Your task to perform on an android device: Search for "logitech g pro" on costco.com, select the first entry, and add it to the cart. Image 0: 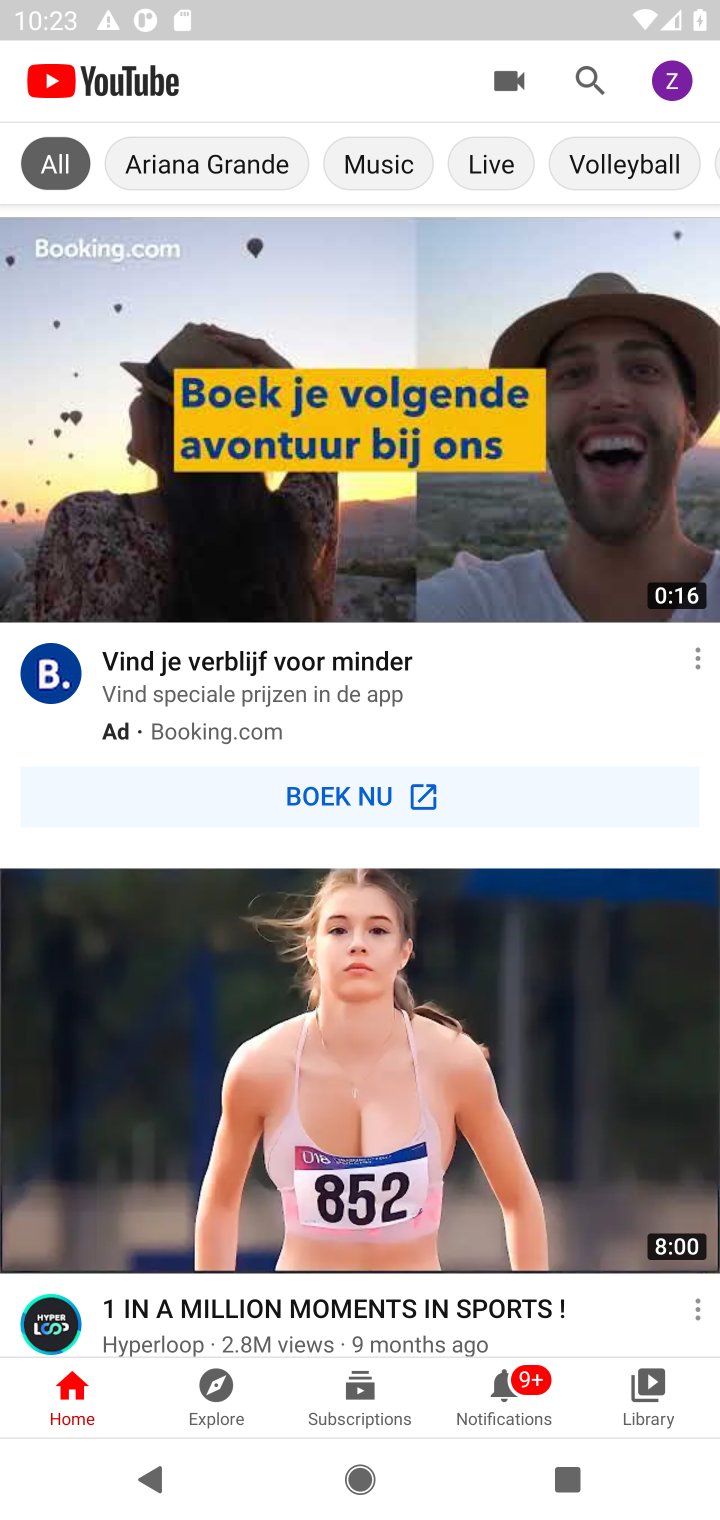
Step 0: press home button
Your task to perform on an android device: Search for "logitech g pro" on costco.com, select the first entry, and add it to the cart. Image 1: 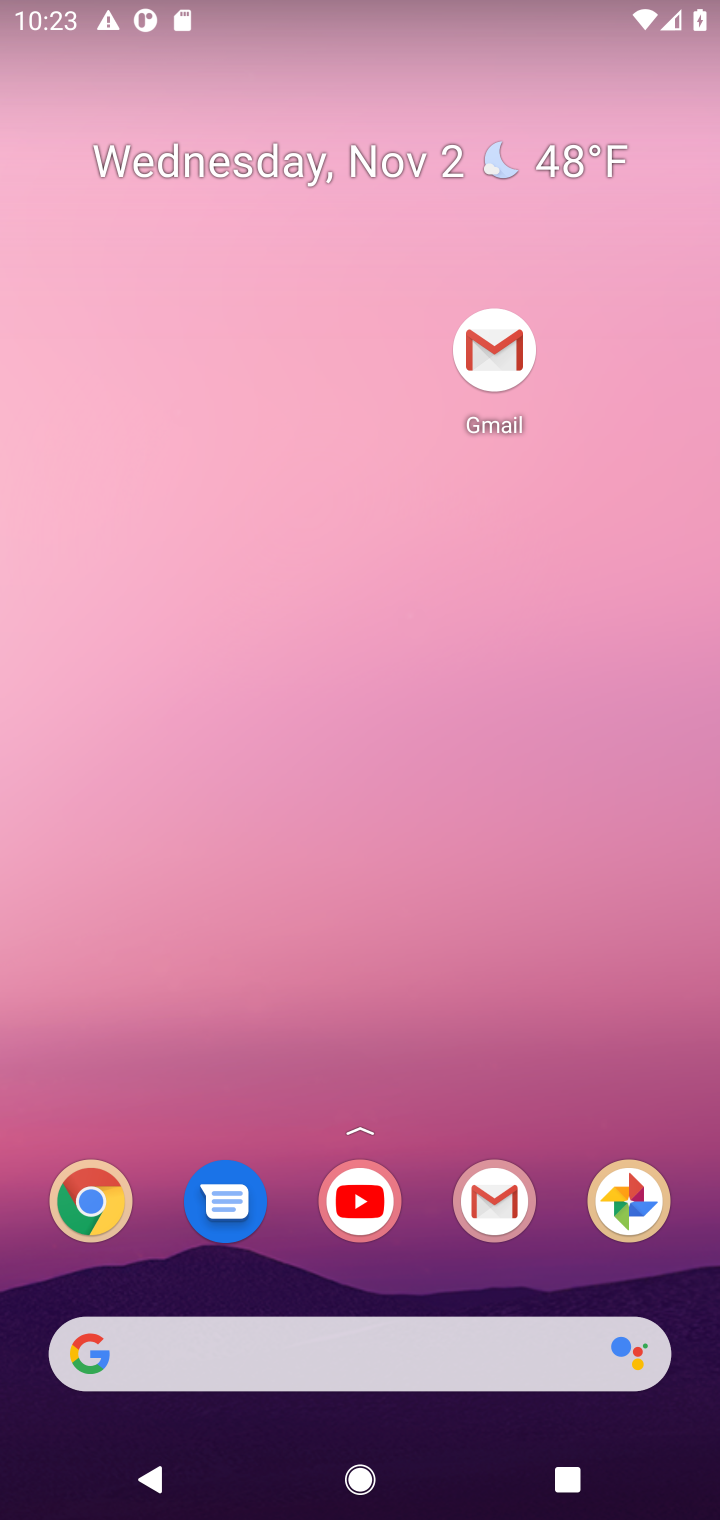
Step 1: drag from (417, 1277) to (357, 265)
Your task to perform on an android device: Search for "logitech g pro" on costco.com, select the first entry, and add it to the cart. Image 2: 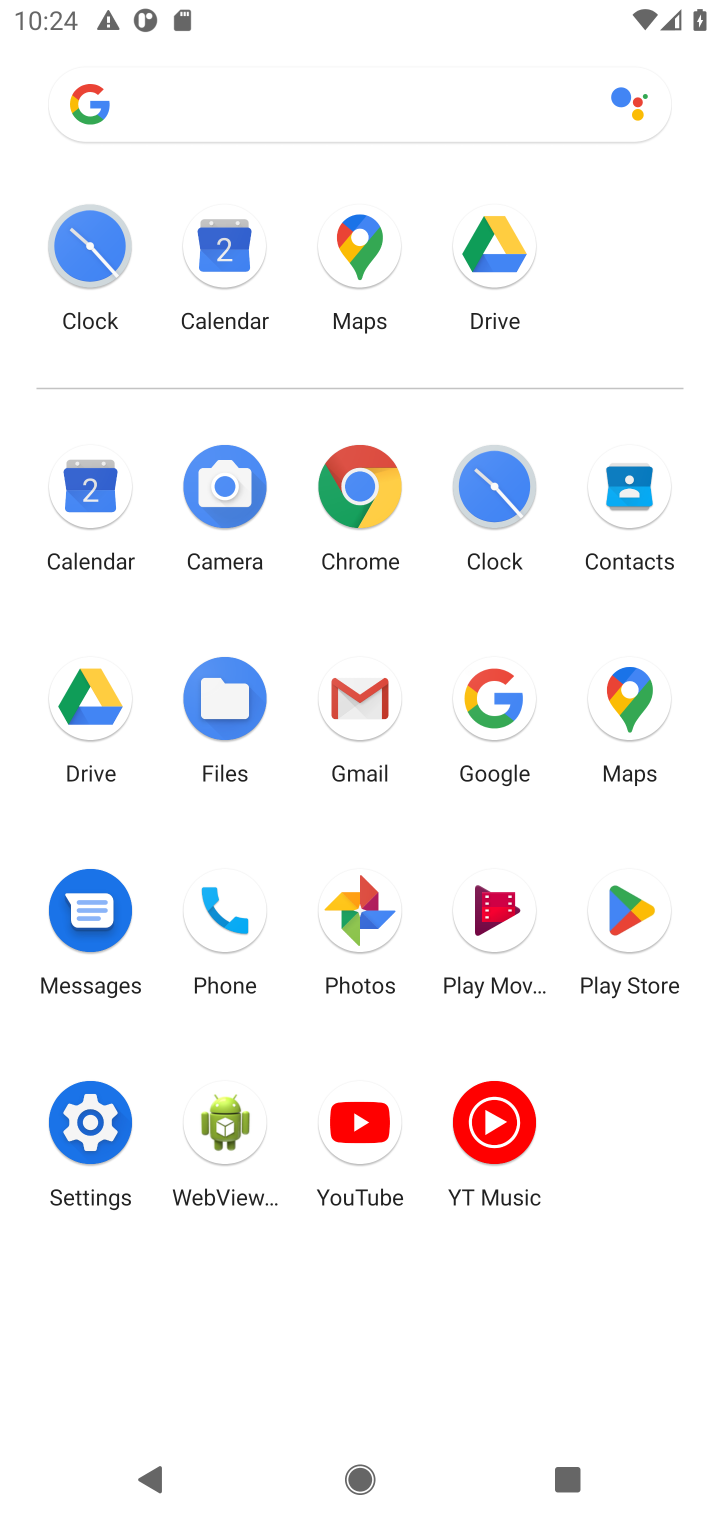
Step 2: click (357, 482)
Your task to perform on an android device: Search for "logitech g pro" on costco.com, select the first entry, and add it to the cart. Image 3: 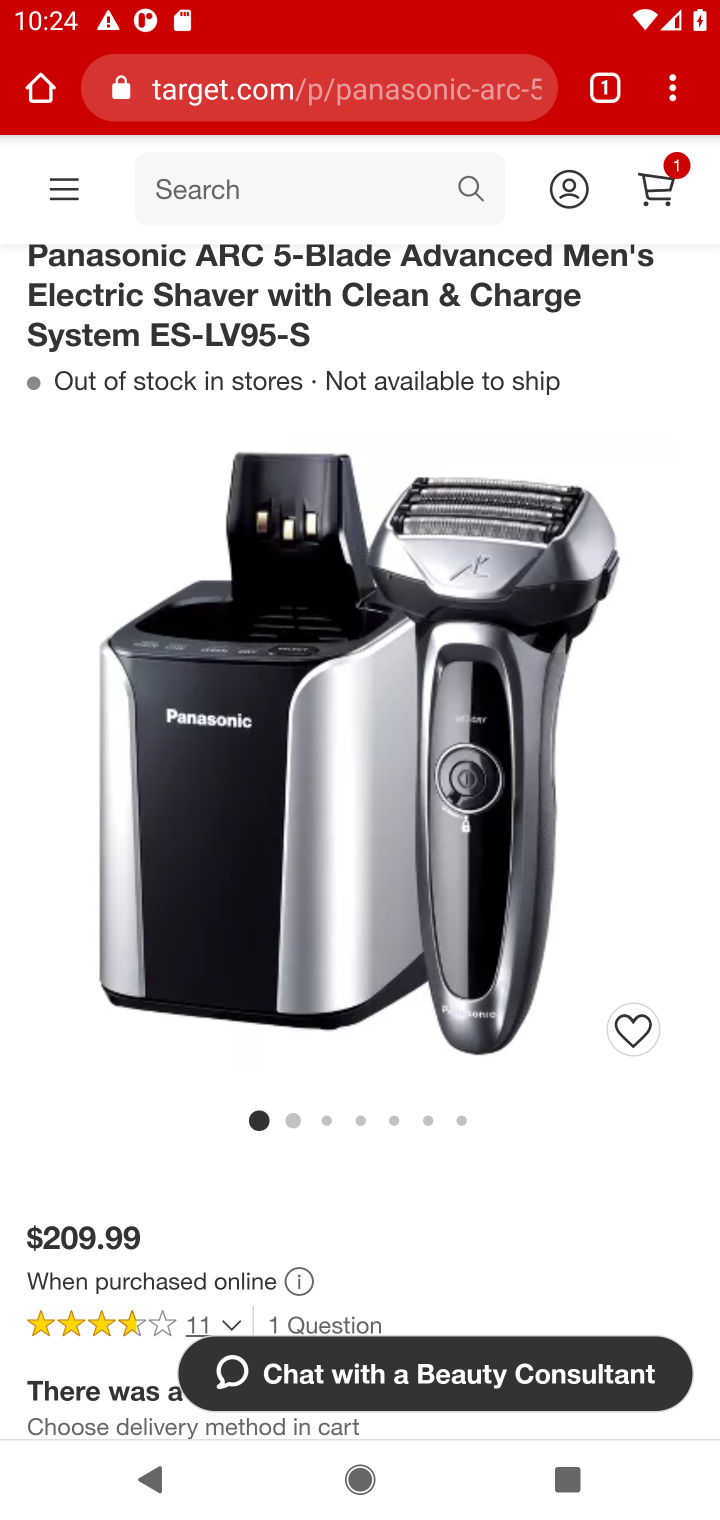
Step 3: click (431, 93)
Your task to perform on an android device: Search for "logitech g pro" on costco.com, select the first entry, and add it to the cart. Image 4: 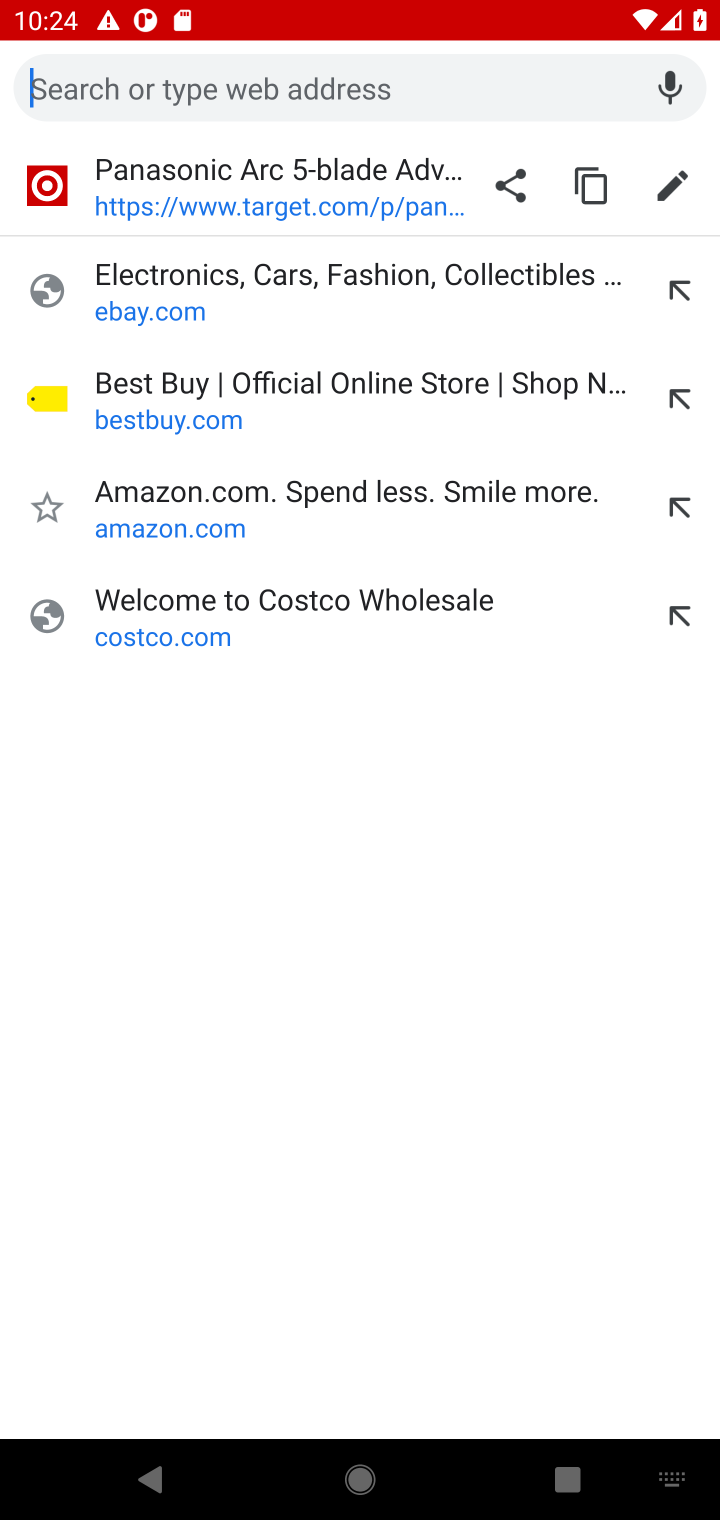
Step 4: type "costco.com"
Your task to perform on an android device: Search for "logitech g pro" on costco.com, select the first entry, and add it to the cart. Image 5: 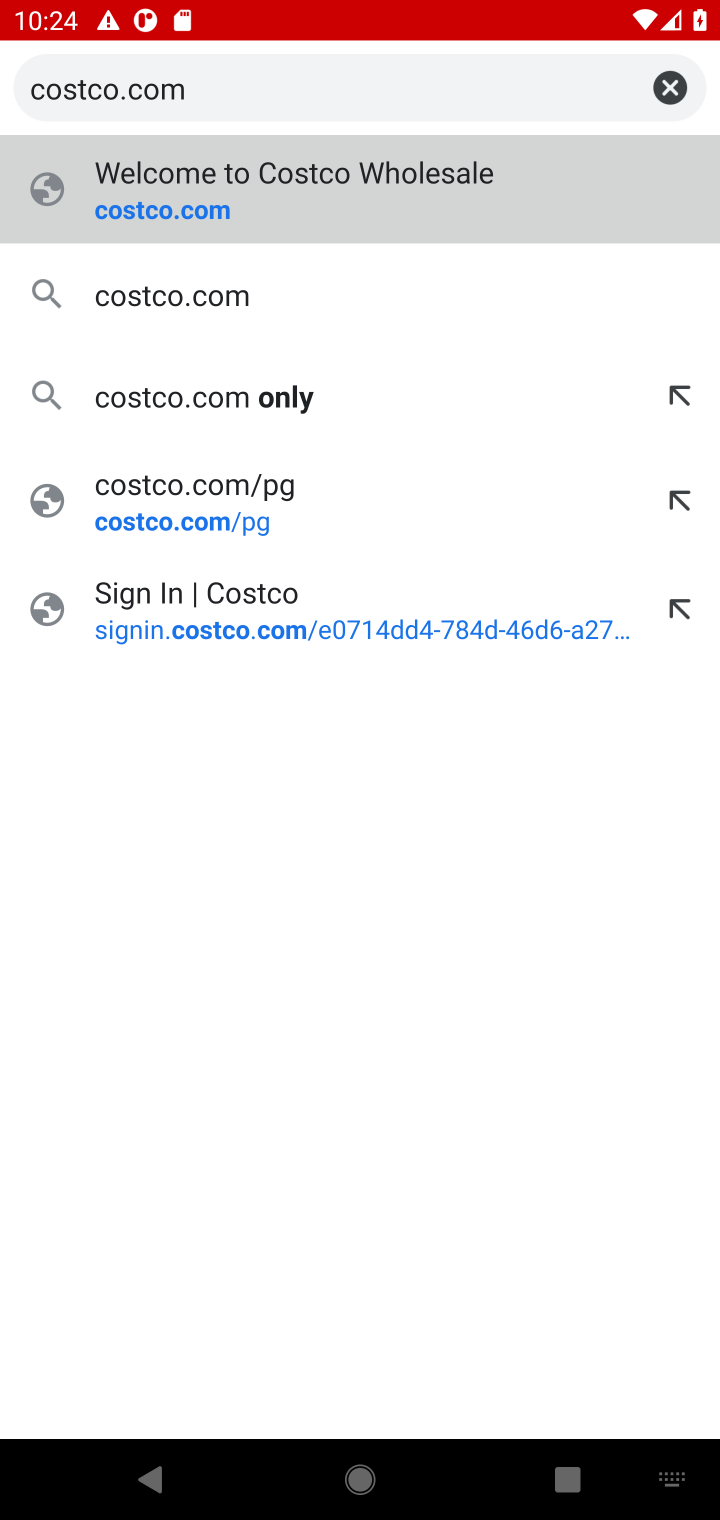
Step 5: press enter
Your task to perform on an android device: Search for "logitech g pro" on costco.com, select the first entry, and add it to the cart. Image 6: 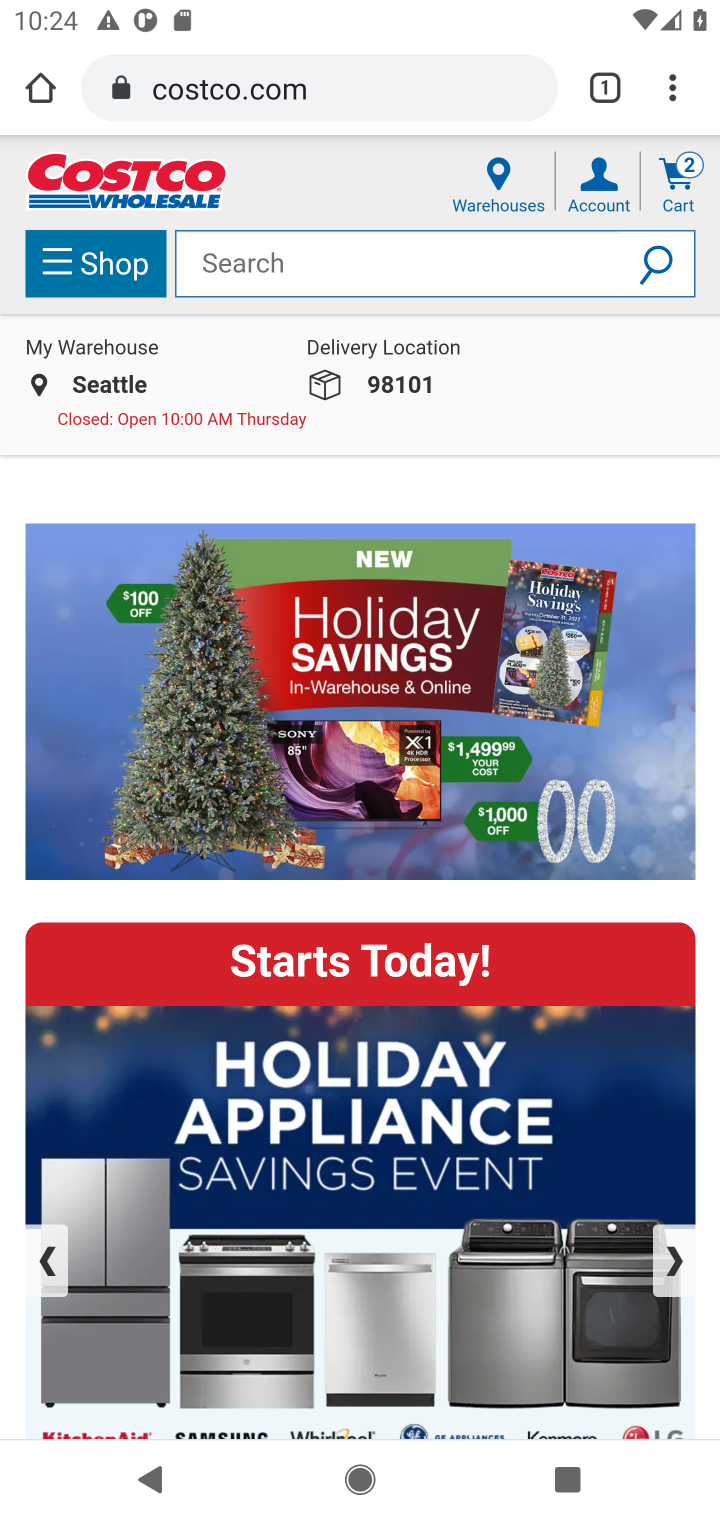
Step 6: click (319, 259)
Your task to perform on an android device: Search for "logitech g pro" on costco.com, select the first entry, and add it to the cart. Image 7: 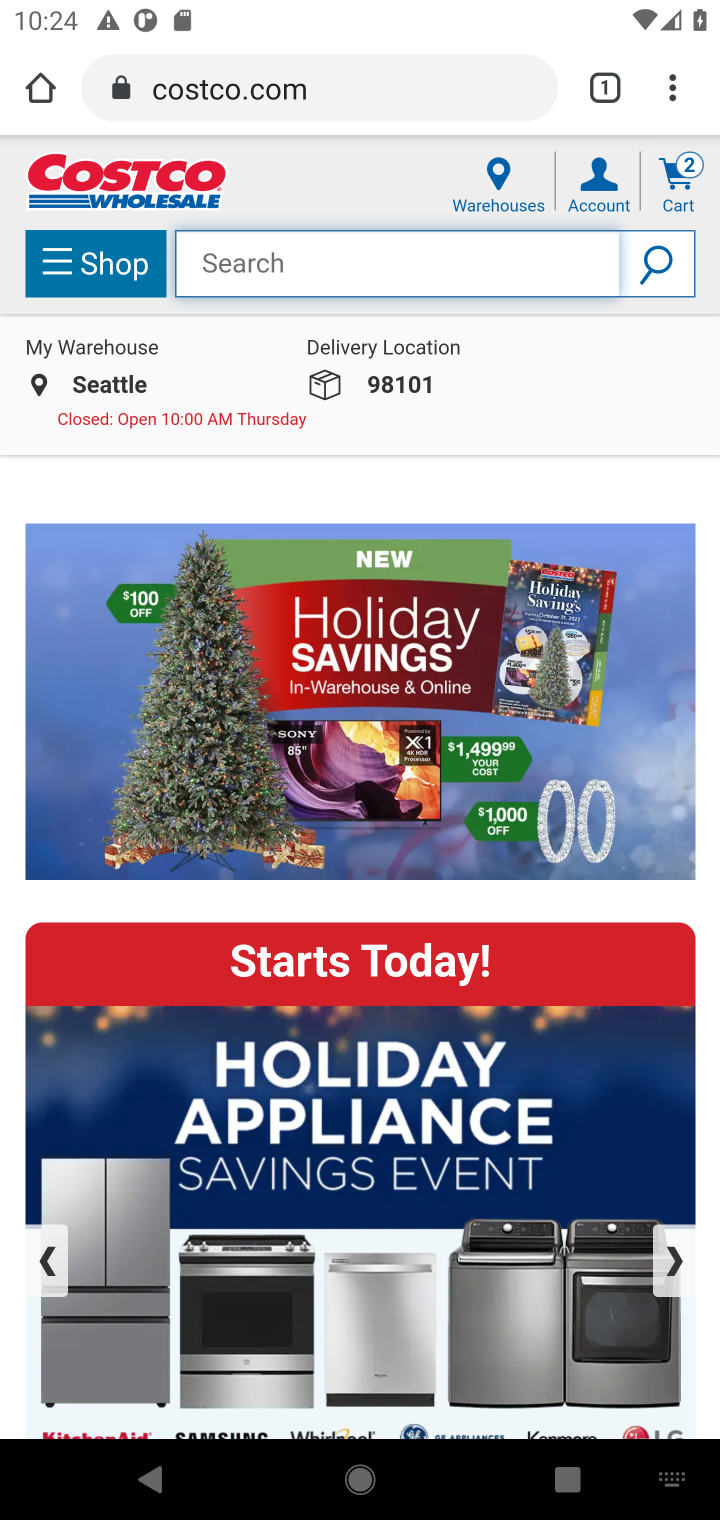
Step 7: type "logitech g pro"
Your task to perform on an android device: Search for "logitech g pro" on costco.com, select the first entry, and add it to the cart. Image 8: 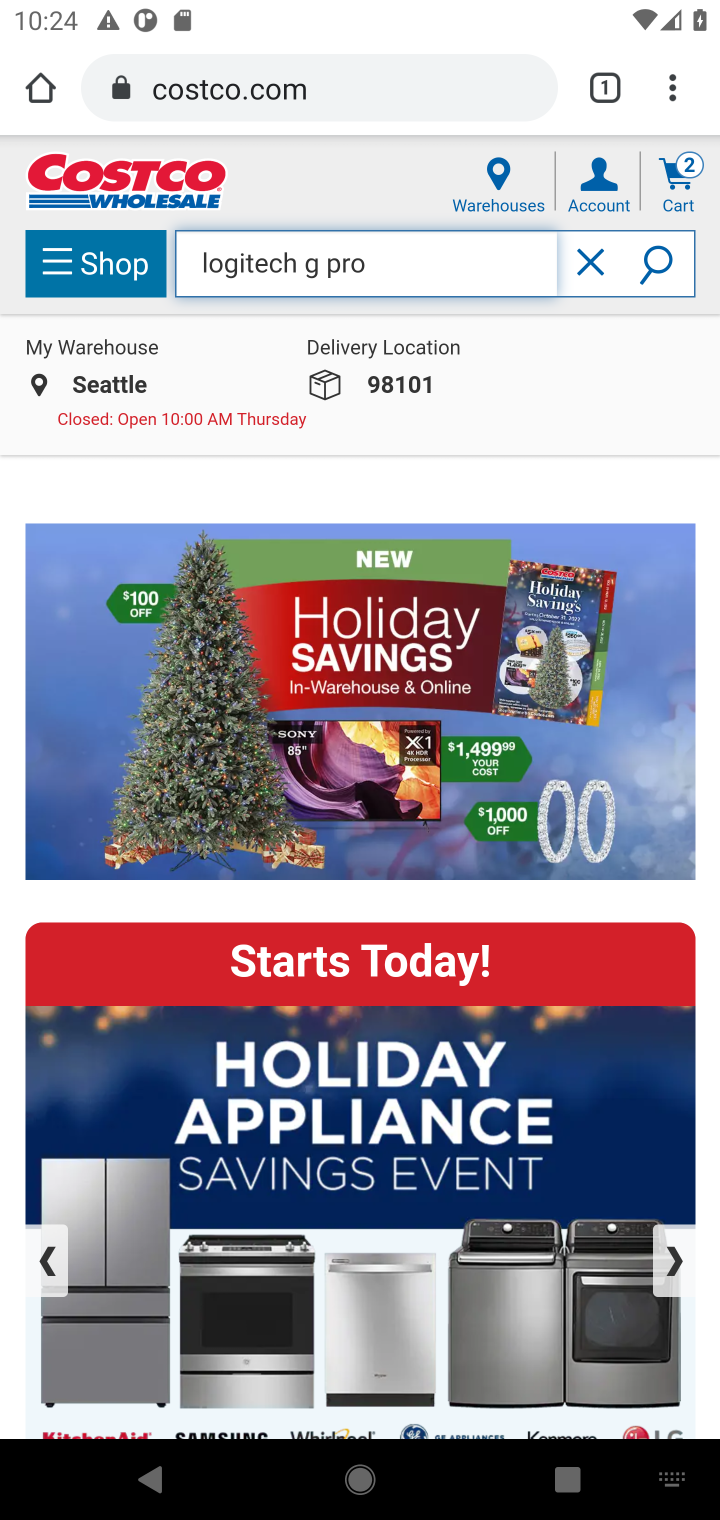
Step 8: press enter
Your task to perform on an android device: Search for "logitech g pro" on costco.com, select the first entry, and add it to the cart. Image 9: 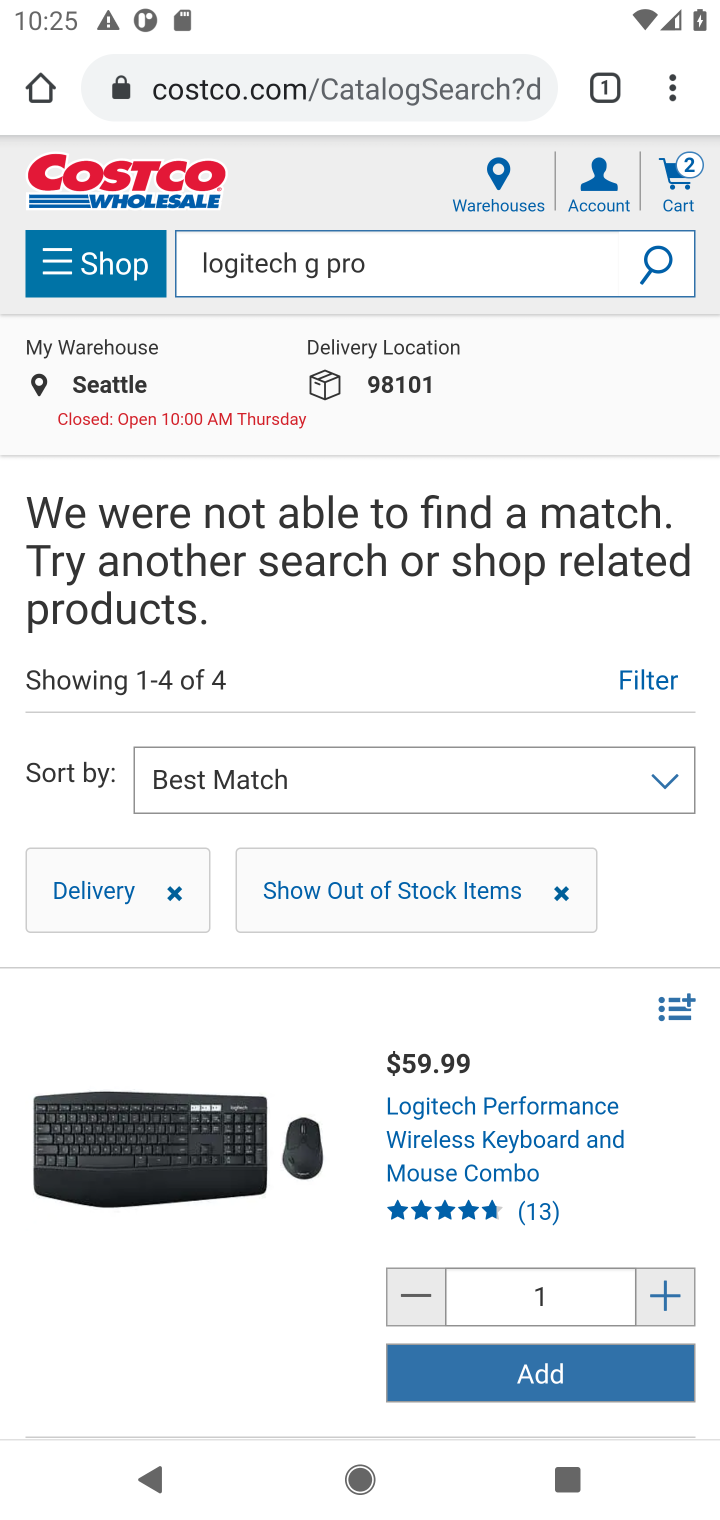
Step 9: task complete